Your task to perform on an android device: Open Amazon Image 0: 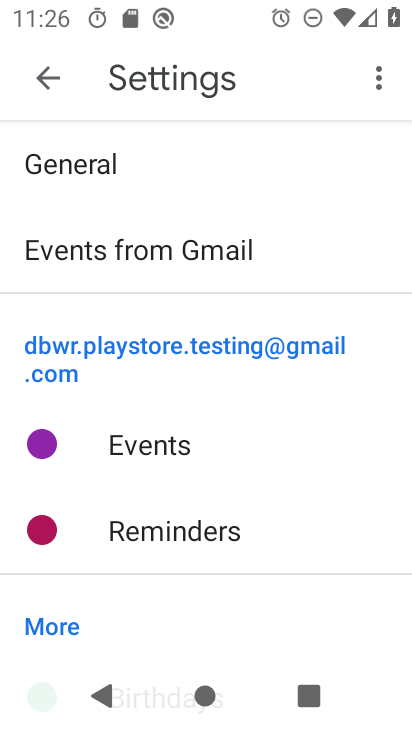
Step 0: press home button
Your task to perform on an android device: Open Amazon Image 1: 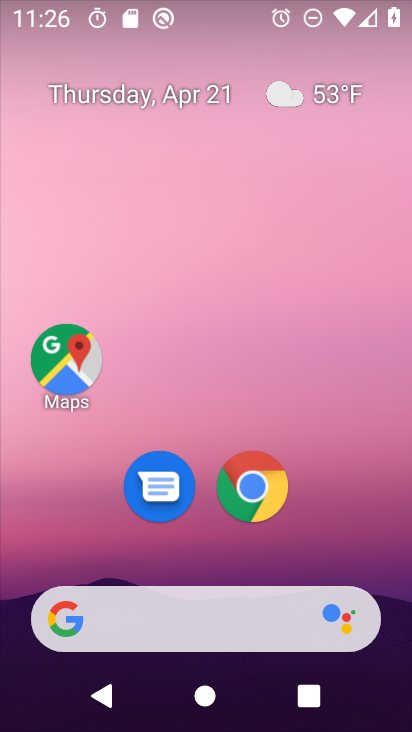
Step 1: type " Amazon"
Your task to perform on an android device: Open Amazon Image 2: 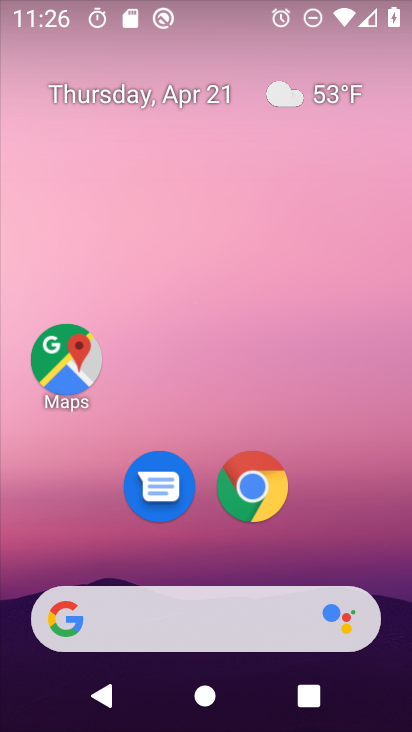
Step 2: click (242, 484)
Your task to perform on an android device: Open Amazon Image 3: 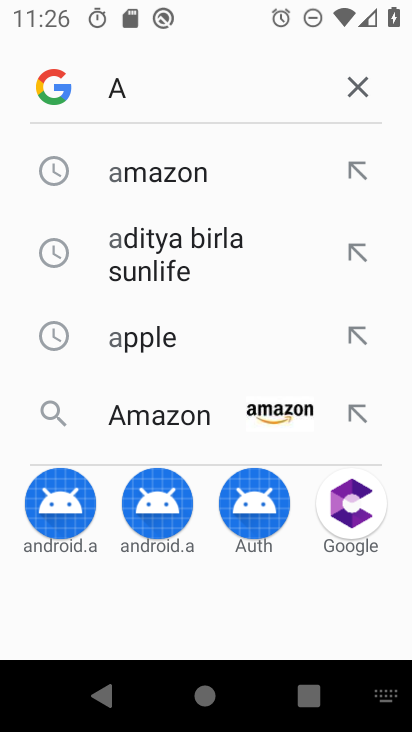
Step 3: click (354, 88)
Your task to perform on an android device: Open Amazon Image 4: 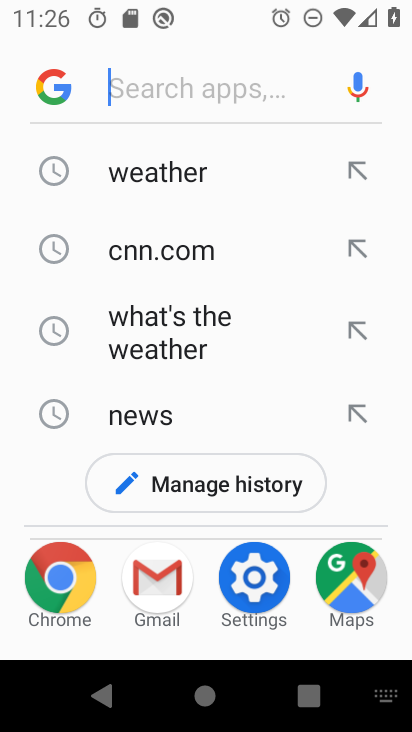
Step 4: click (129, 88)
Your task to perform on an android device: Open Amazon Image 5: 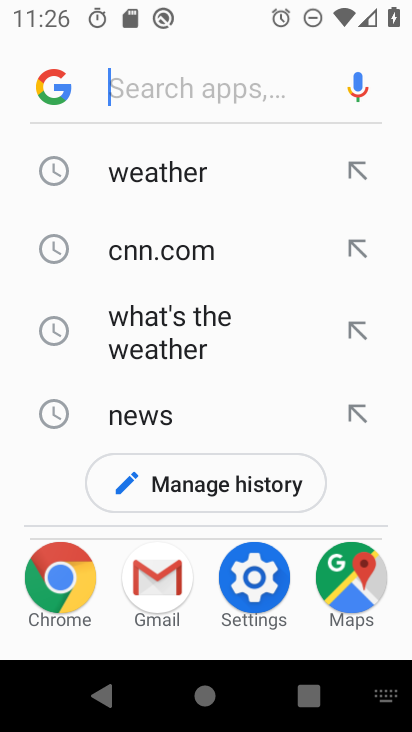
Step 5: type "Amazon"
Your task to perform on an android device: Open Amazon Image 6: 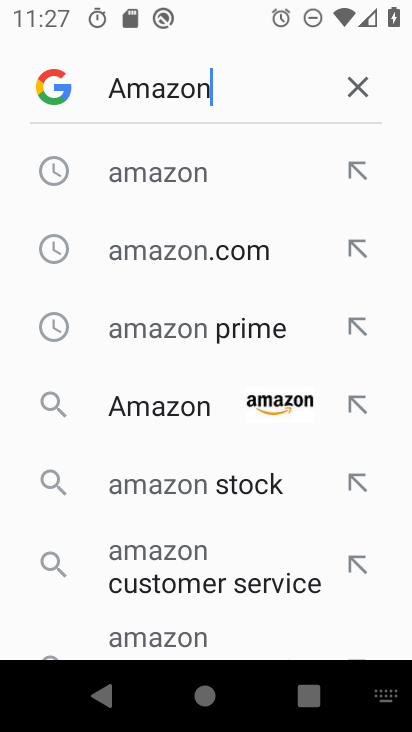
Step 6: click (182, 241)
Your task to perform on an android device: Open Amazon Image 7: 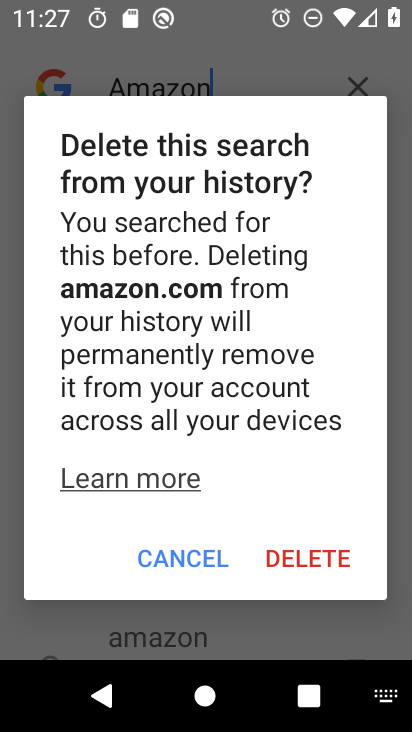
Step 7: click (204, 553)
Your task to perform on an android device: Open Amazon Image 8: 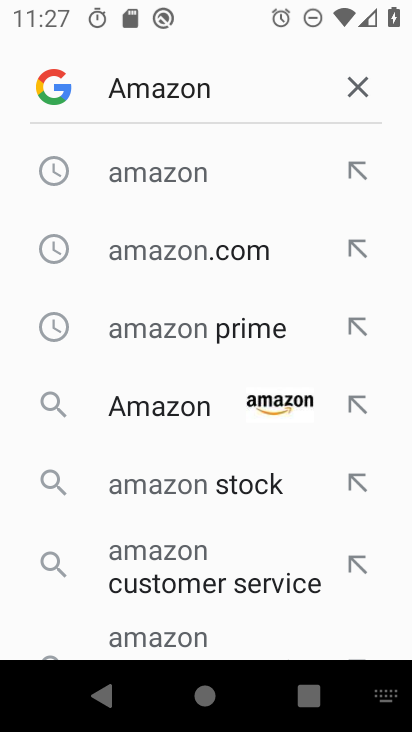
Step 8: click (137, 163)
Your task to perform on an android device: Open Amazon Image 9: 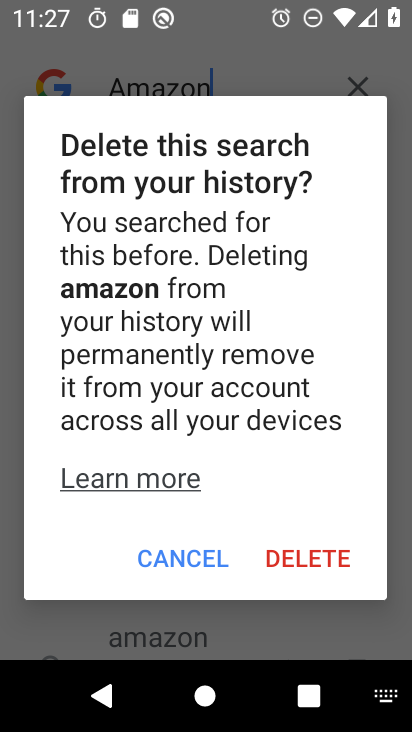
Step 9: click (290, 552)
Your task to perform on an android device: Open Amazon Image 10: 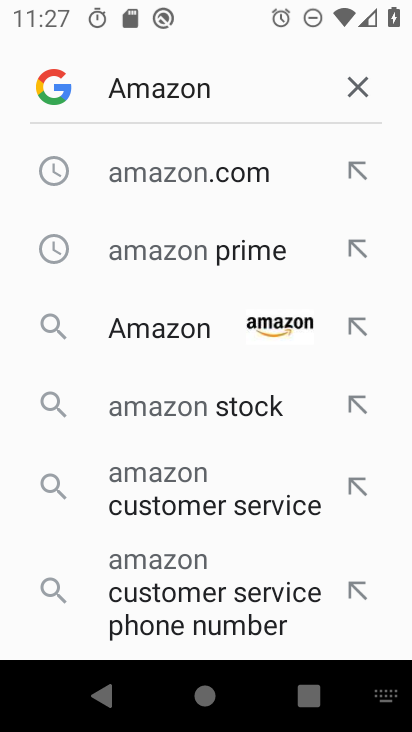
Step 10: click (139, 172)
Your task to perform on an android device: Open Amazon Image 11: 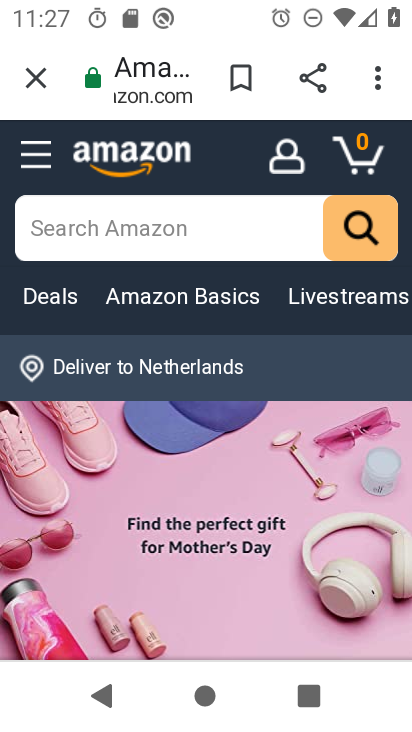
Step 11: task complete